Your task to perform on an android device: turn on priority inbox in the gmail app Image 0: 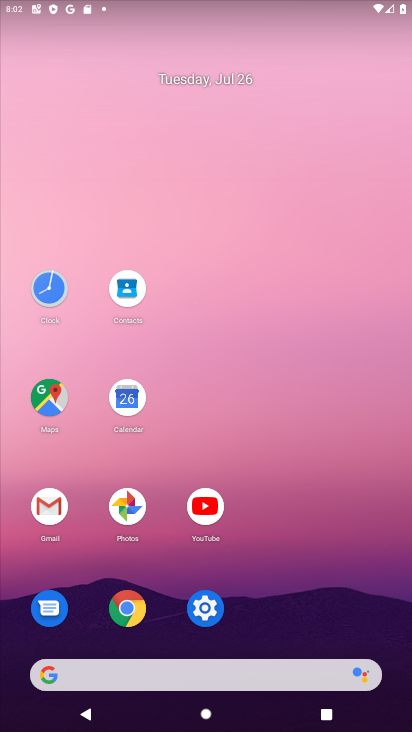
Step 0: click (48, 504)
Your task to perform on an android device: turn on priority inbox in the gmail app Image 1: 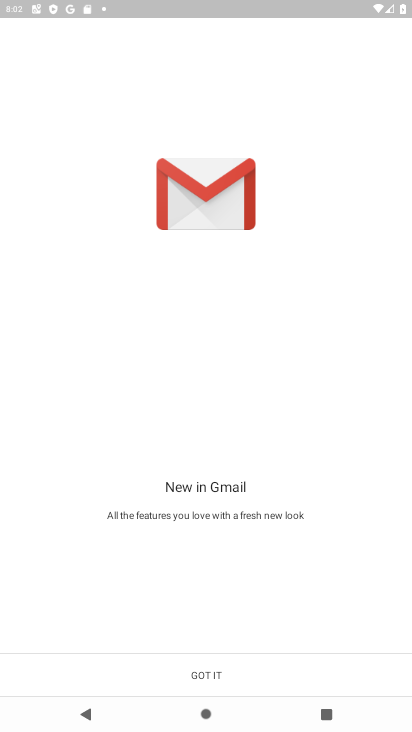
Step 1: click (206, 665)
Your task to perform on an android device: turn on priority inbox in the gmail app Image 2: 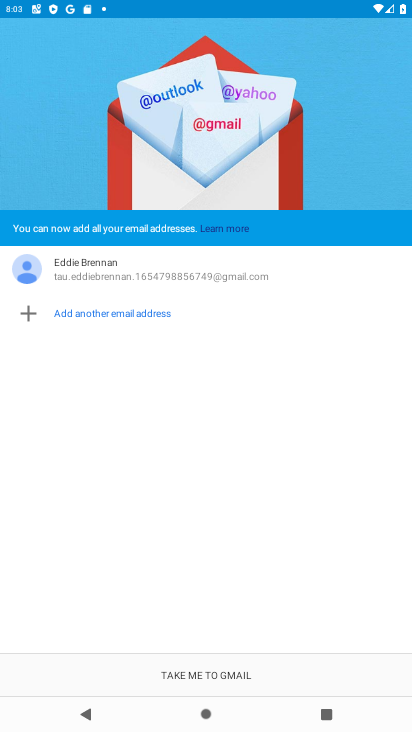
Step 2: click (206, 674)
Your task to perform on an android device: turn on priority inbox in the gmail app Image 3: 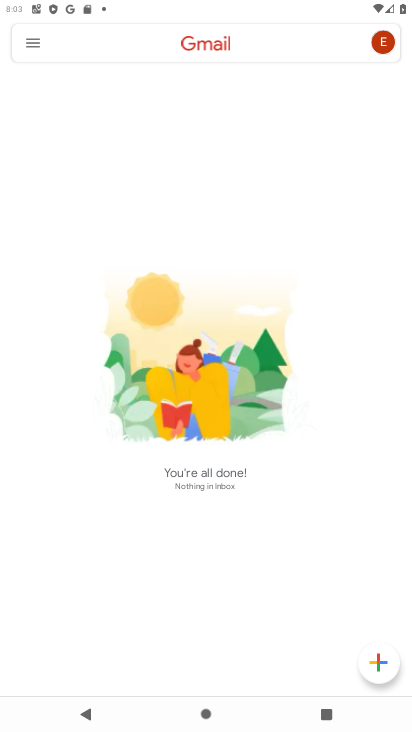
Step 3: click (33, 42)
Your task to perform on an android device: turn on priority inbox in the gmail app Image 4: 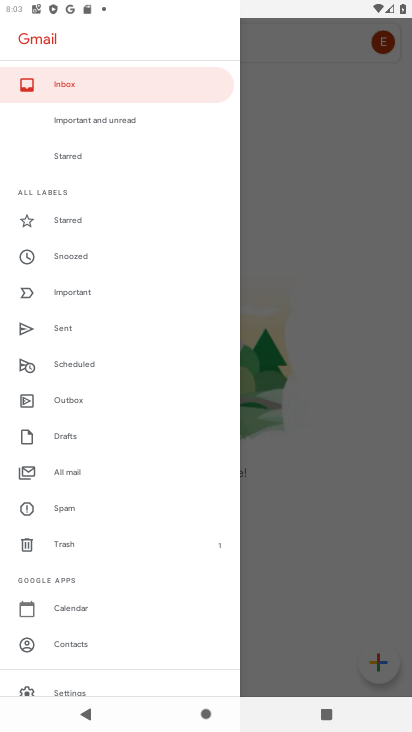
Step 4: drag from (121, 617) to (142, 231)
Your task to perform on an android device: turn on priority inbox in the gmail app Image 5: 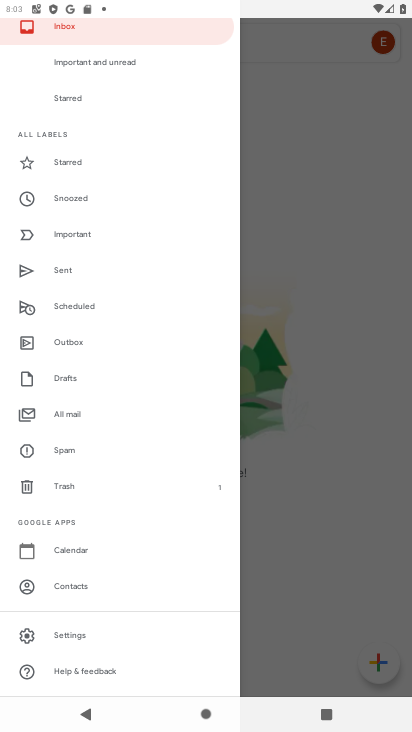
Step 5: click (66, 633)
Your task to perform on an android device: turn on priority inbox in the gmail app Image 6: 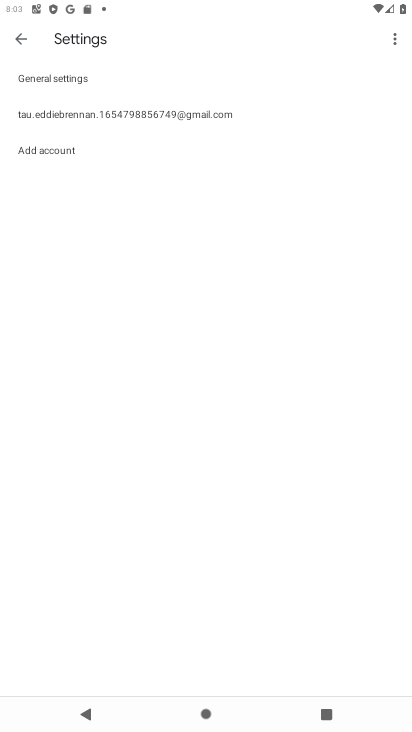
Step 6: click (66, 114)
Your task to perform on an android device: turn on priority inbox in the gmail app Image 7: 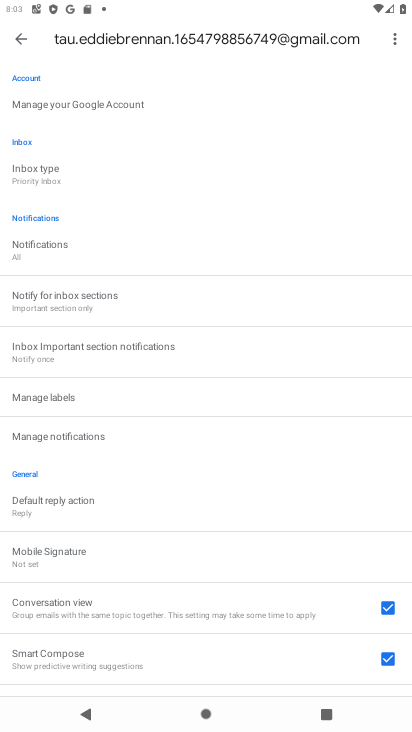
Step 7: click (27, 172)
Your task to perform on an android device: turn on priority inbox in the gmail app Image 8: 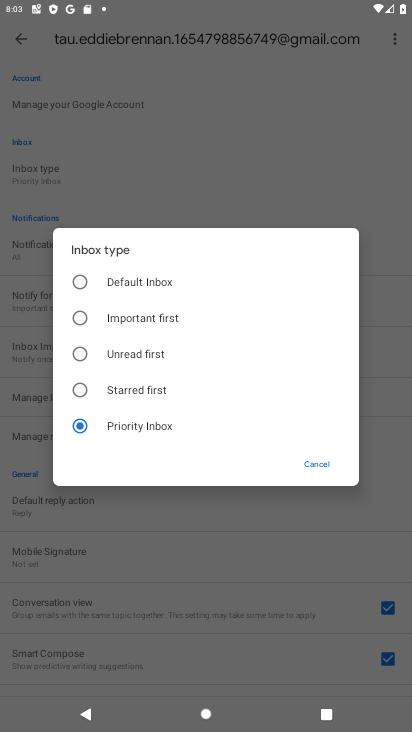
Step 8: task complete